Your task to perform on an android device: move an email to a new category in the gmail app Image 0: 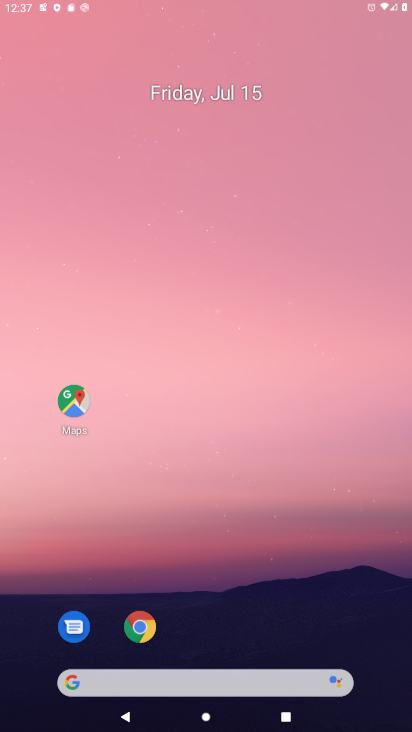
Step 0: press home button
Your task to perform on an android device: move an email to a new category in the gmail app Image 1: 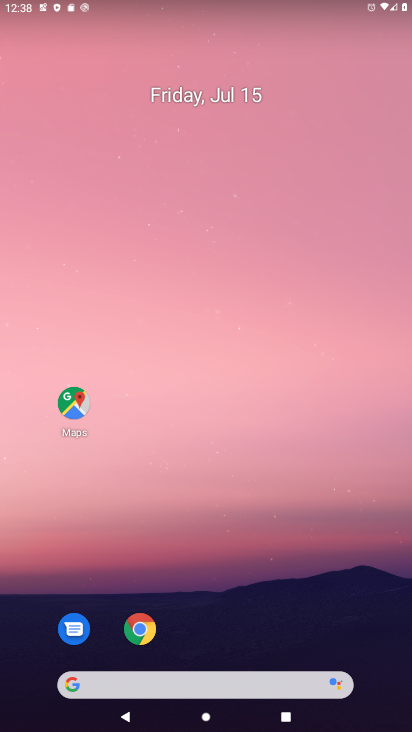
Step 1: drag from (277, 663) to (375, 30)
Your task to perform on an android device: move an email to a new category in the gmail app Image 2: 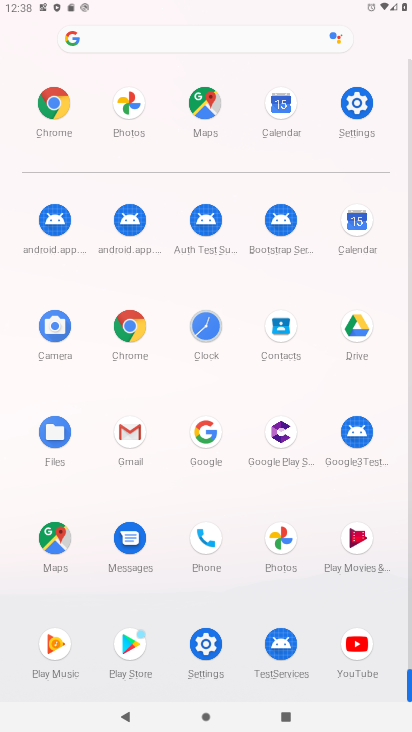
Step 2: click (102, 451)
Your task to perform on an android device: move an email to a new category in the gmail app Image 3: 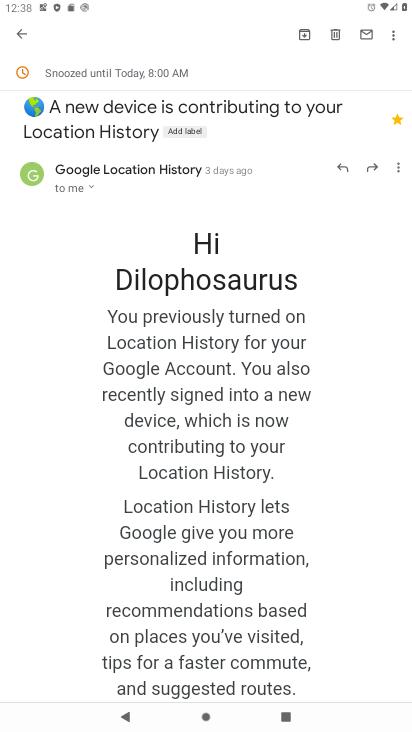
Step 3: click (24, 34)
Your task to perform on an android device: move an email to a new category in the gmail app Image 4: 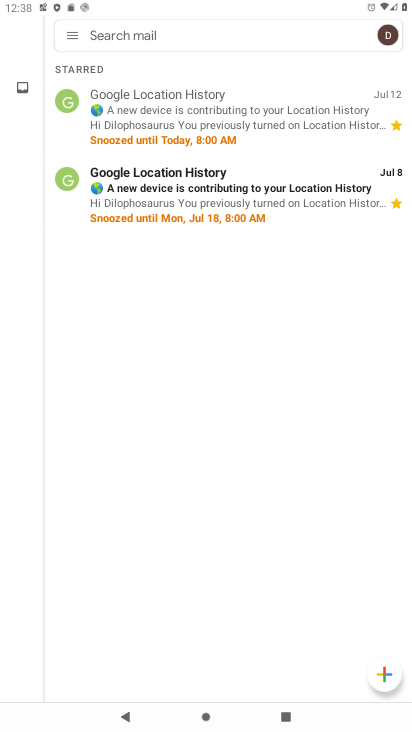
Step 4: click (54, 46)
Your task to perform on an android device: move an email to a new category in the gmail app Image 5: 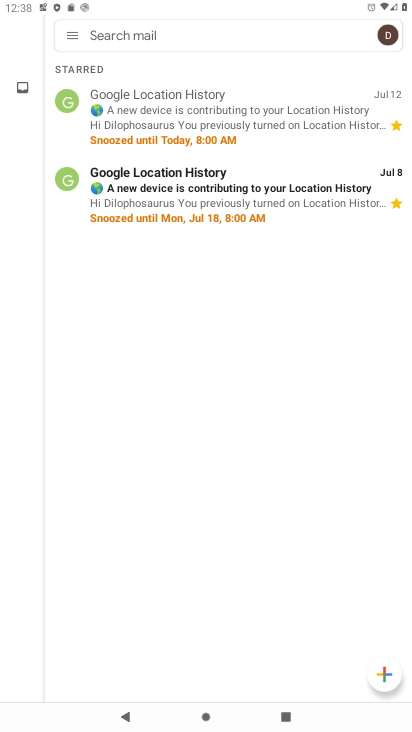
Step 5: click (72, 43)
Your task to perform on an android device: move an email to a new category in the gmail app Image 6: 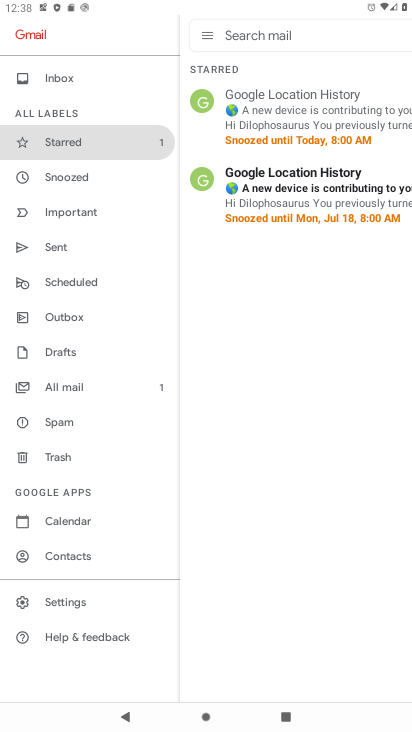
Step 6: click (80, 395)
Your task to perform on an android device: move an email to a new category in the gmail app Image 7: 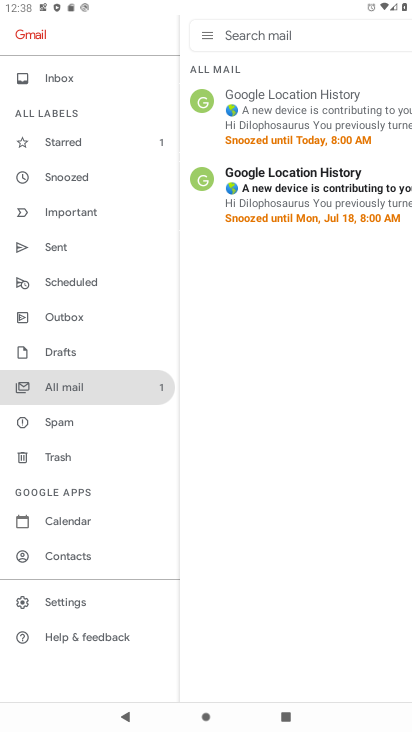
Step 7: click (280, 114)
Your task to perform on an android device: move an email to a new category in the gmail app Image 8: 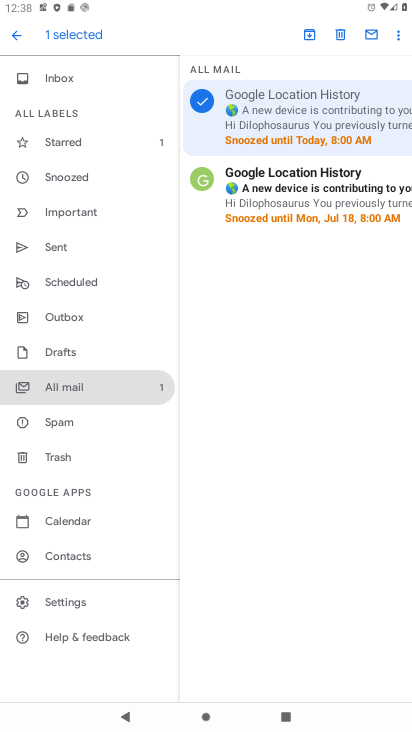
Step 8: click (396, 35)
Your task to perform on an android device: move an email to a new category in the gmail app Image 9: 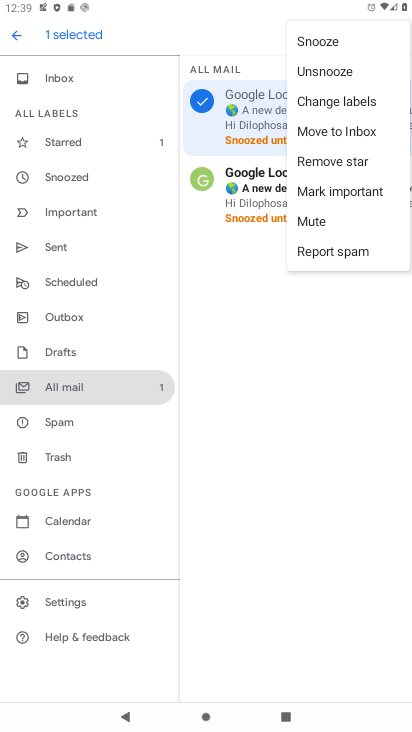
Step 9: click (356, 136)
Your task to perform on an android device: move an email to a new category in the gmail app Image 10: 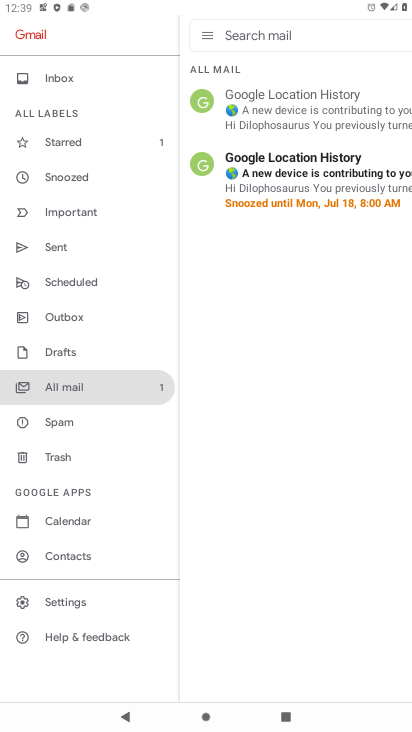
Step 10: task complete